Your task to perform on an android device: turn off notifications settings in the gmail app Image 0: 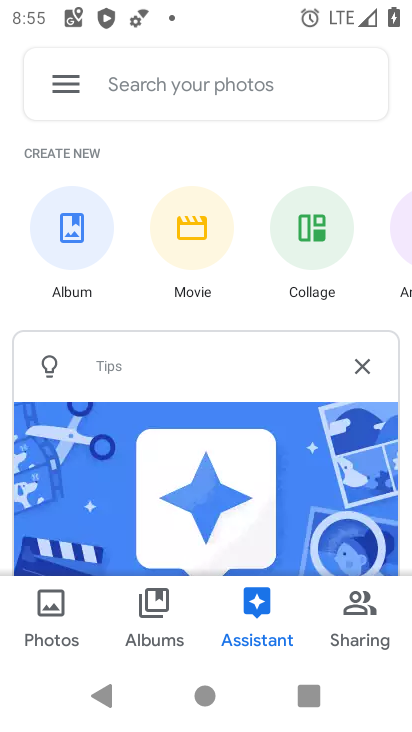
Step 0: press home button
Your task to perform on an android device: turn off notifications settings in the gmail app Image 1: 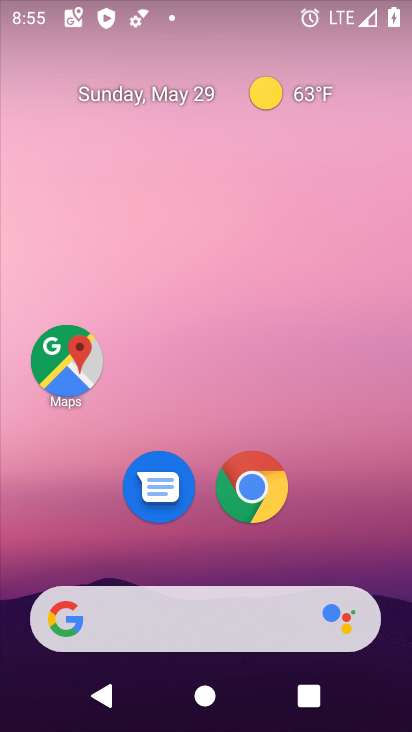
Step 1: drag from (288, 597) to (354, 133)
Your task to perform on an android device: turn off notifications settings in the gmail app Image 2: 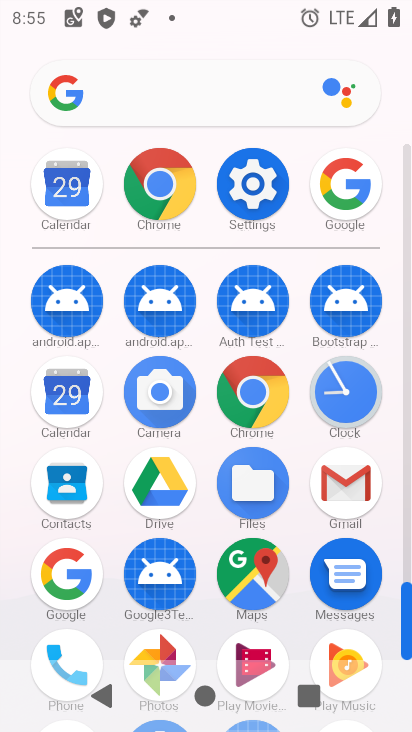
Step 2: click (357, 507)
Your task to perform on an android device: turn off notifications settings in the gmail app Image 3: 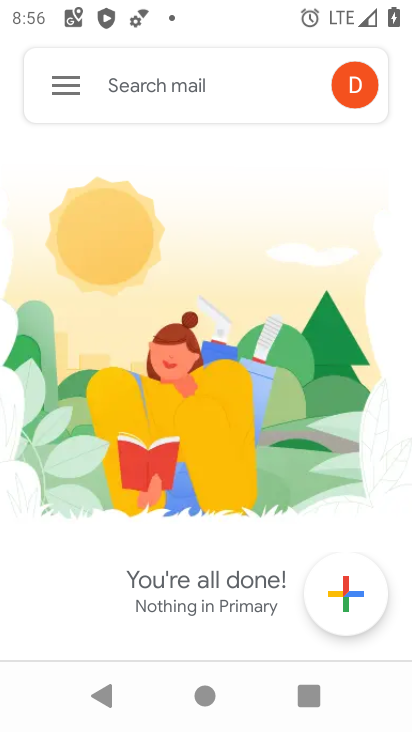
Step 3: click (69, 89)
Your task to perform on an android device: turn off notifications settings in the gmail app Image 4: 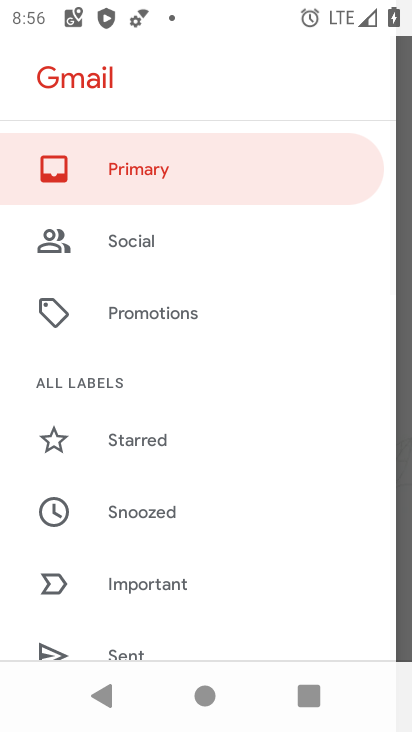
Step 4: drag from (154, 536) to (182, 325)
Your task to perform on an android device: turn off notifications settings in the gmail app Image 5: 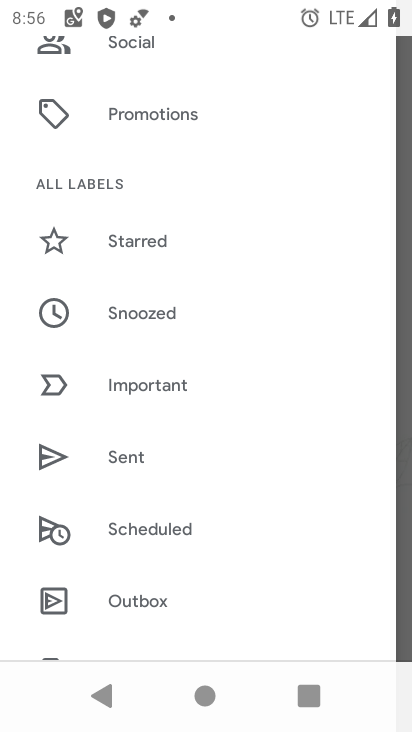
Step 5: drag from (159, 517) to (186, 340)
Your task to perform on an android device: turn off notifications settings in the gmail app Image 6: 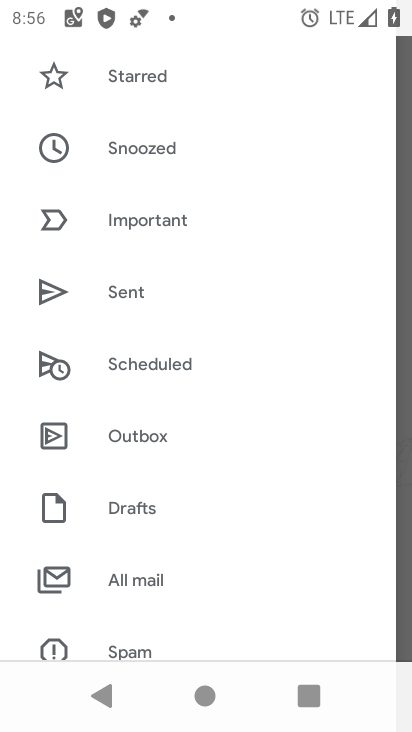
Step 6: drag from (164, 602) to (203, 373)
Your task to perform on an android device: turn off notifications settings in the gmail app Image 7: 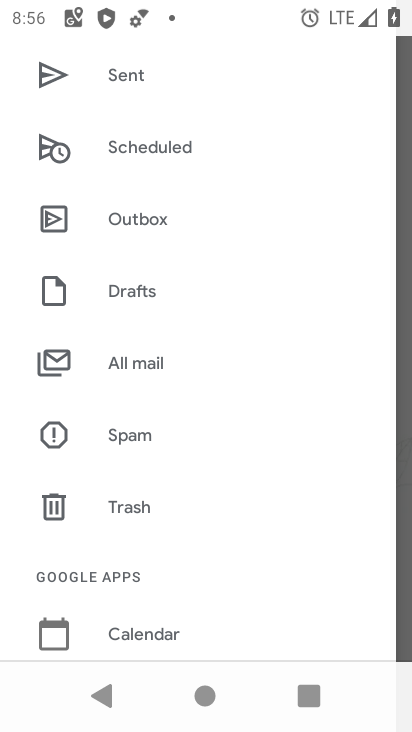
Step 7: drag from (158, 595) to (184, 337)
Your task to perform on an android device: turn off notifications settings in the gmail app Image 8: 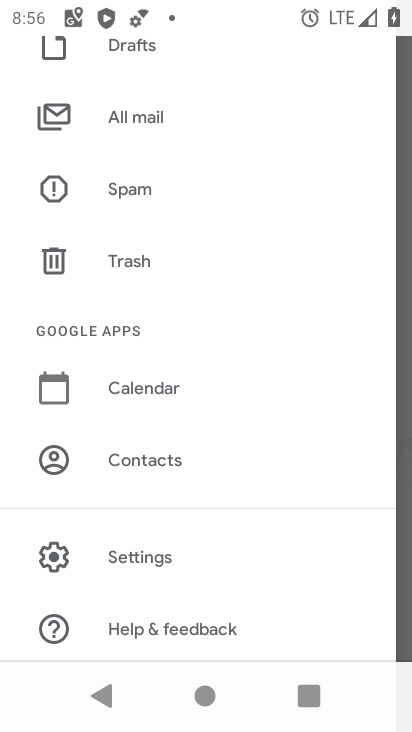
Step 8: click (124, 554)
Your task to perform on an android device: turn off notifications settings in the gmail app Image 9: 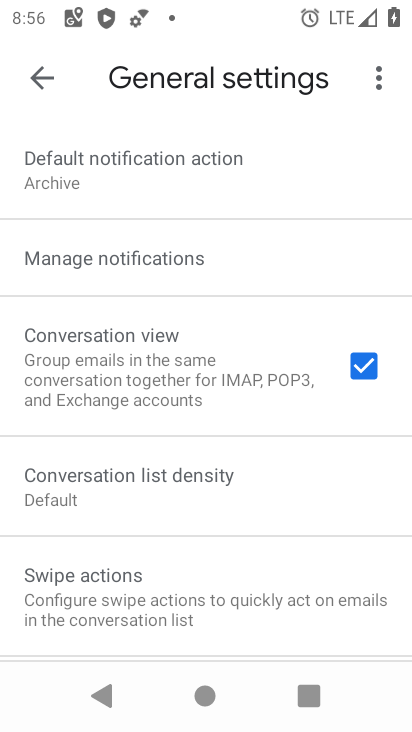
Step 9: click (269, 274)
Your task to perform on an android device: turn off notifications settings in the gmail app Image 10: 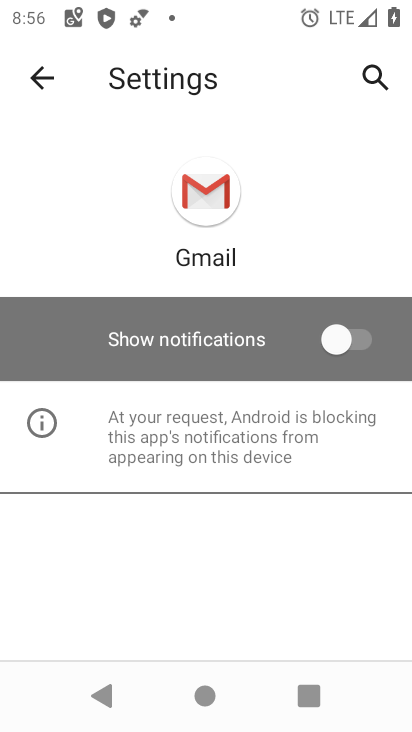
Step 10: task complete